Your task to perform on an android device: turn on improve location accuracy Image 0: 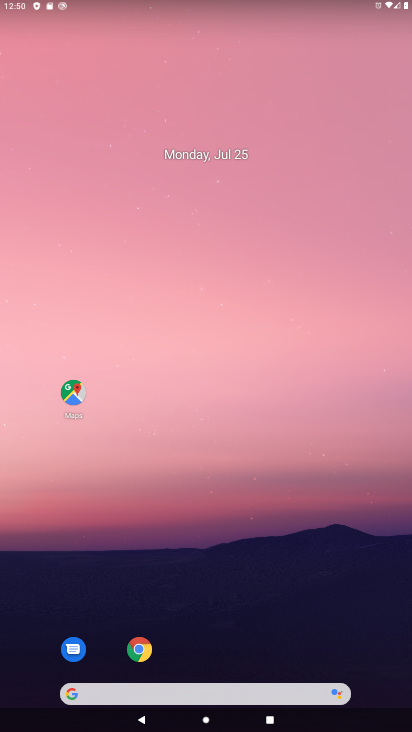
Step 0: press home button
Your task to perform on an android device: turn on improve location accuracy Image 1: 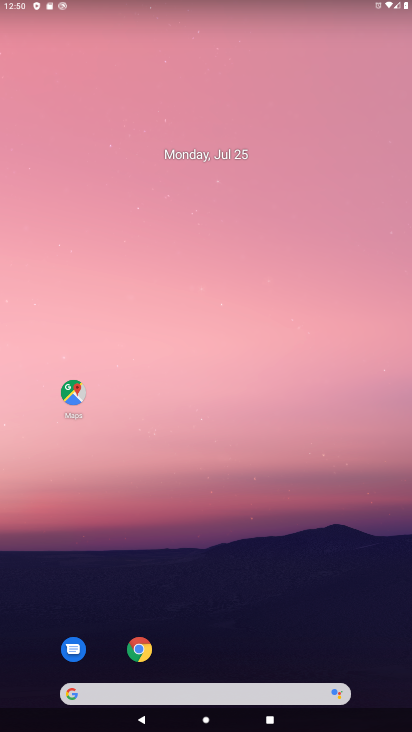
Step 1: drag from (289, 617) to (300, 118)
Your task to perform on an android device: turn on improve location accuracy Image 2: 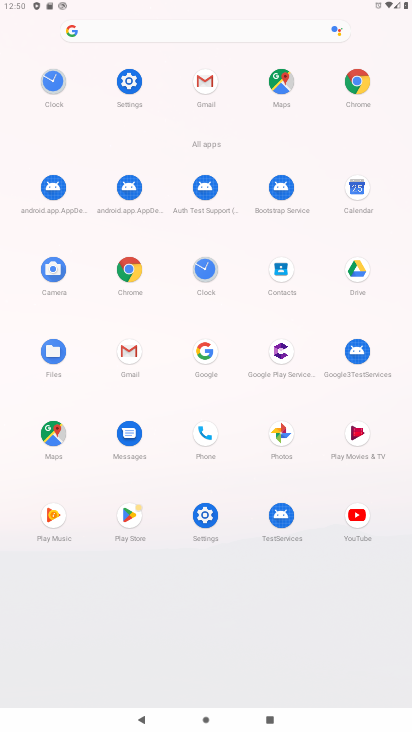
Step 2: click (127, 79)
Your task to perform on an android device: turn on improve location accuracy Image 3: 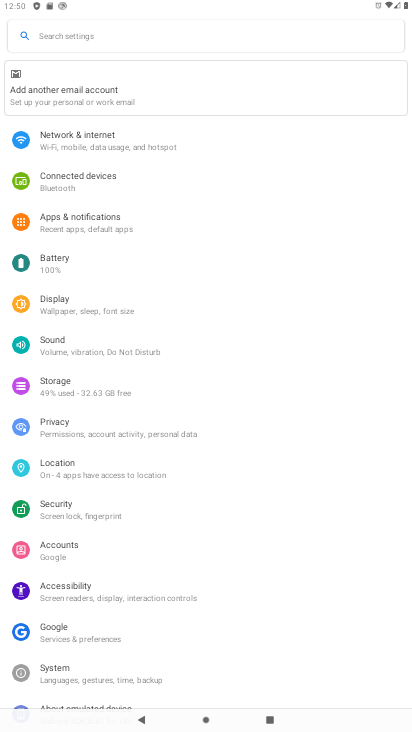
Step 3: click (84, 468)
Your task to perform on an android device: turn on improve location accuracy Image 4: 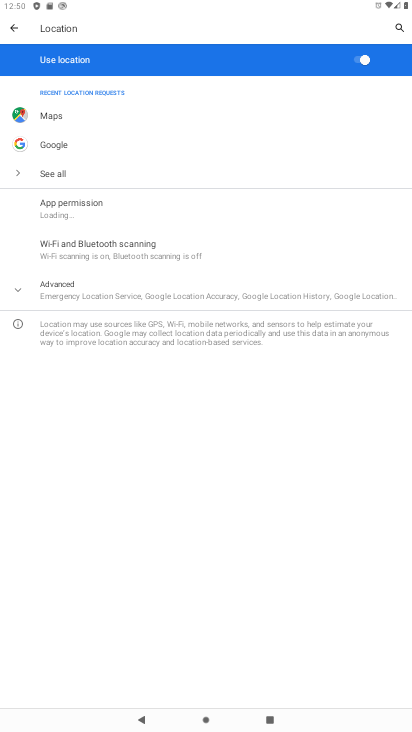
Step 4: click (13, 292)
Your task to perform on an android device: turn on improve location accuracy Image 5: 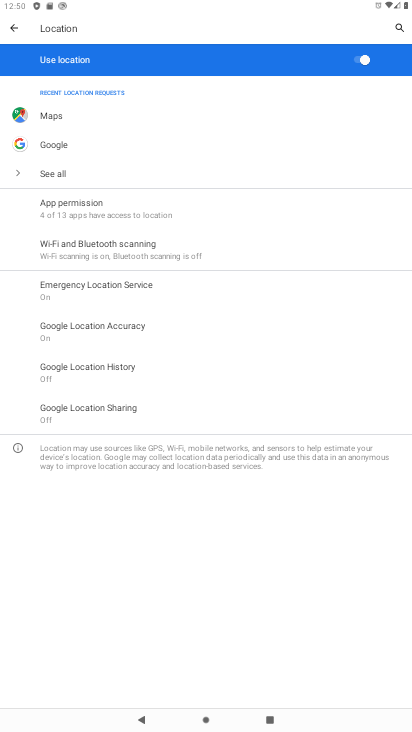
Step 5: task complete